Your task to perform on an android device: set the timer Image 0: 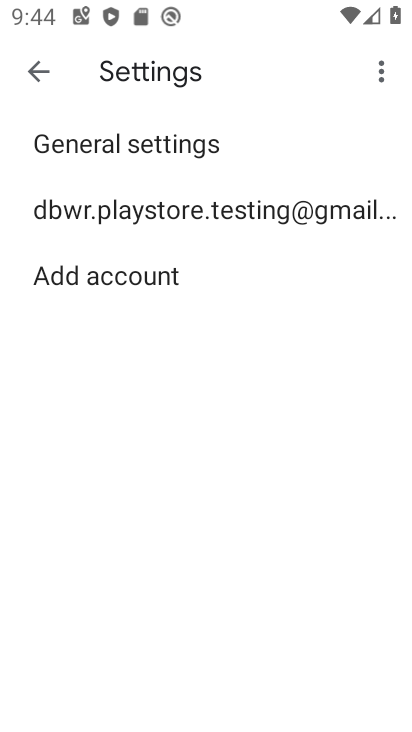
Step 0: press home button
Your task to perform on an android device: set the timer Image 1: 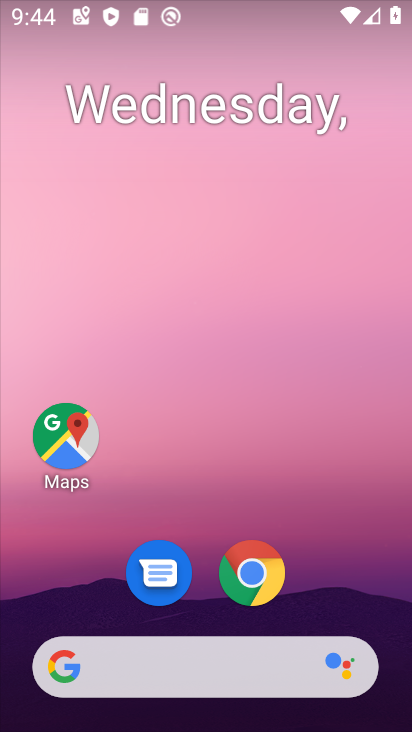
Step 1: drag from (313, 576) to (337, 278)
Your task to perform on an android device: set the timer Image 2: 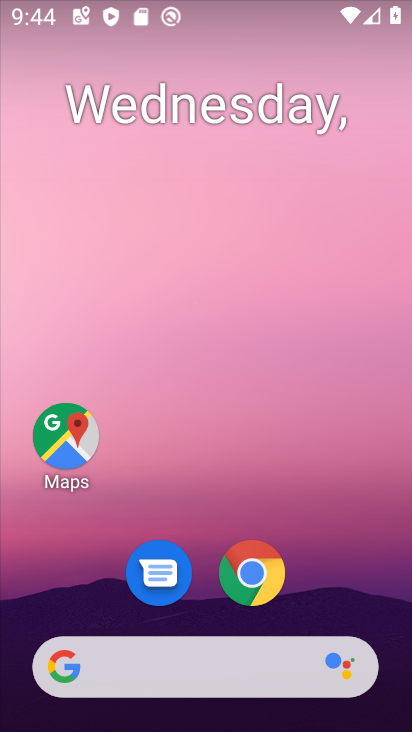
Step 2: drag from (323, 588) to (336, 236)
Your task to perform on an android device: set the timer Image 3: 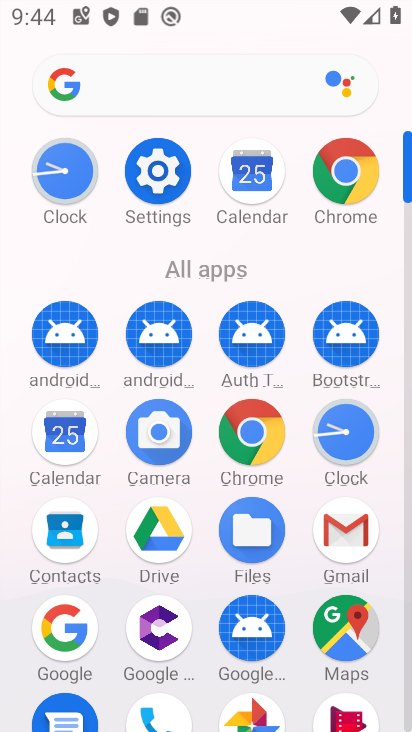
Step 3: click (333, 421)
Your task to perform on an android device: set the timer Image 4: 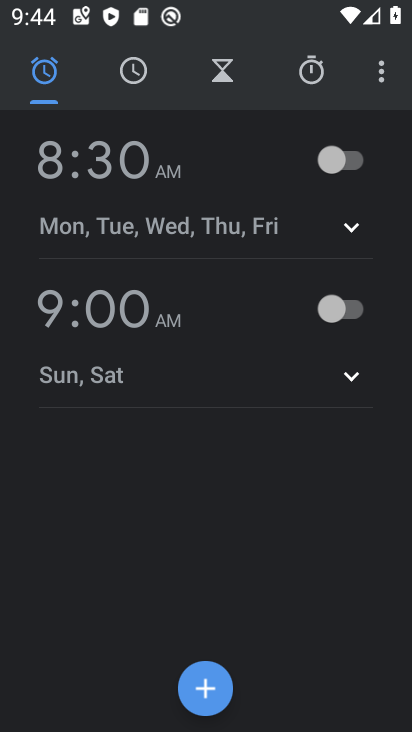
Step 4: click (220, 79)
Your task to perform on an android device: set the timer Image 5: 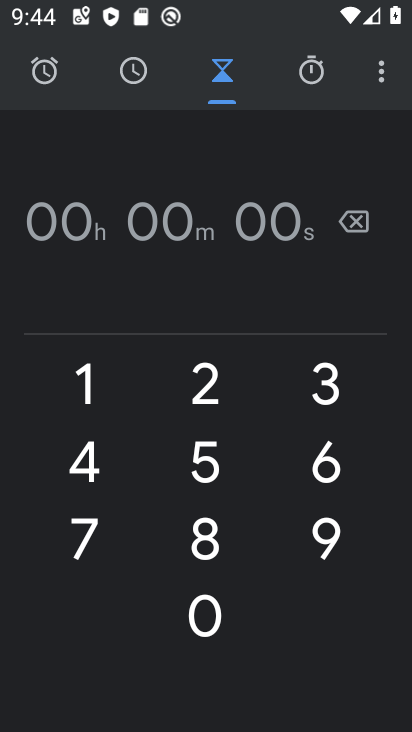
Step 5: click (190, 209)
Your task to perform on an android device: set the timer Image 6: 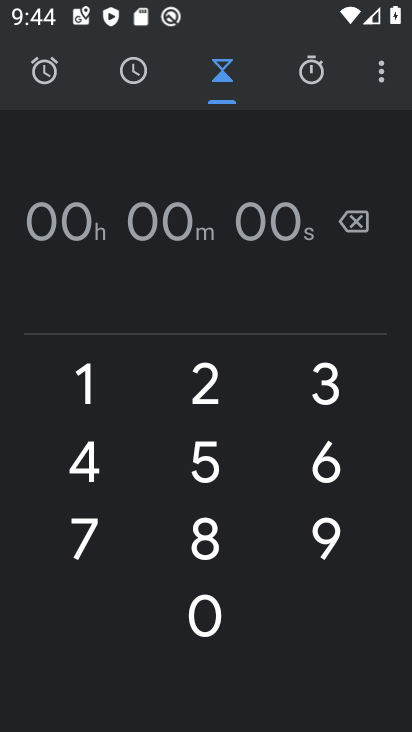
Step 6: type "0909900"
Your task to perform on an android device: set the timer Image 7: 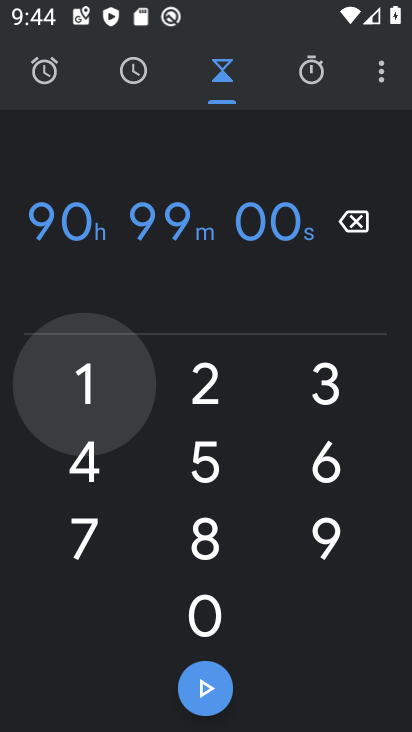
Step 7: click (197, 696)
Your task to perform on an android device: set the timer Image 8: 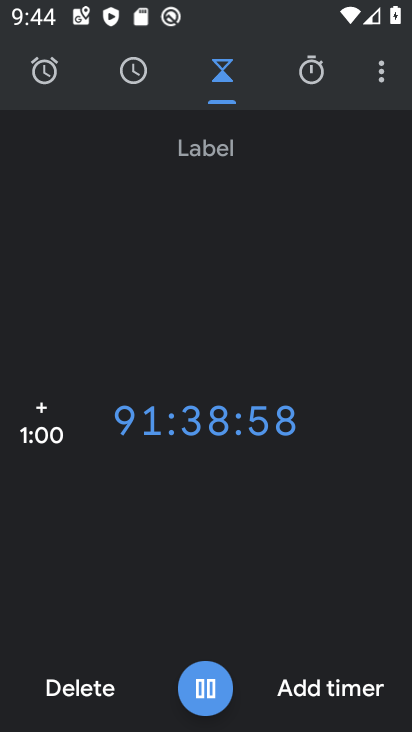
Step 8: click (198, 695)
Your task to perform on an android device: set the timer Image 9: 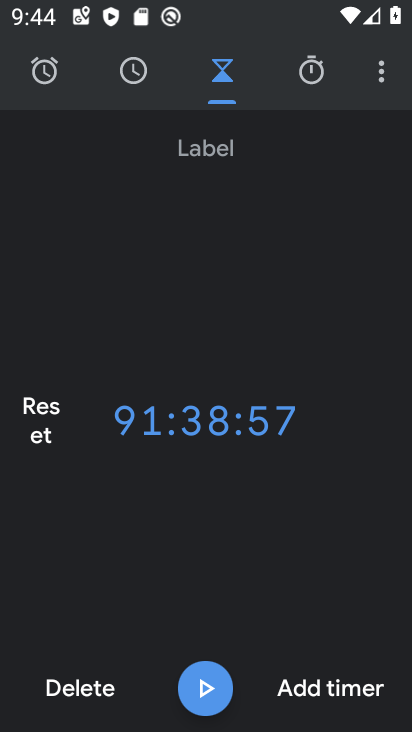
Step 9: task complete